Your task to perform on an android device: Turn on the flashlight Image 0: 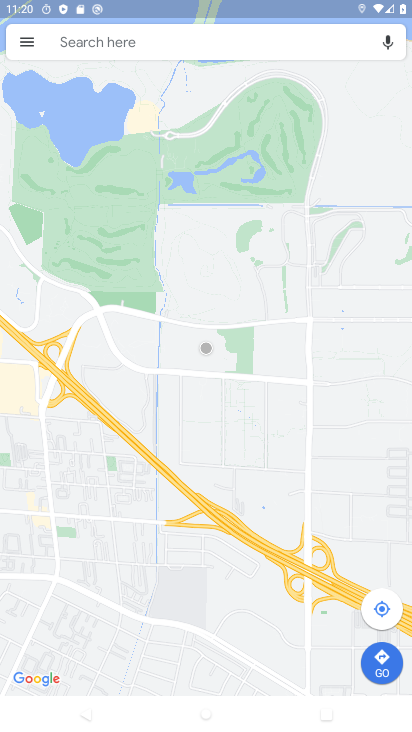
Step 0: drag from (182, 6) to (223, 475)
Your task to perform on an android device: Turn on the flashlight Image 1: 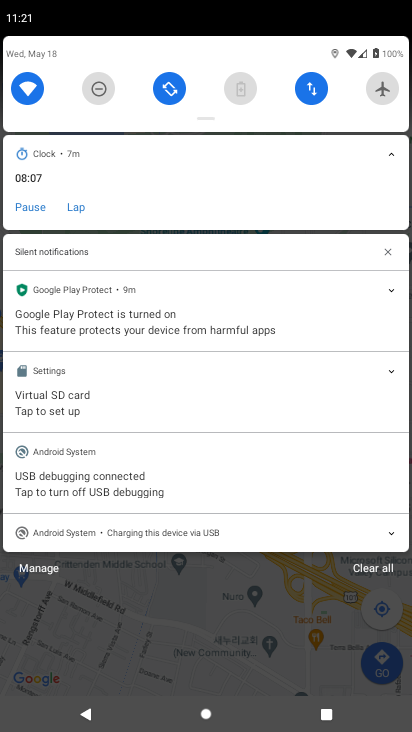
Step 1: drag from (212, 105) to (229, 601)
Your task to perform on an android device: Turn on the flashlight Image 2: 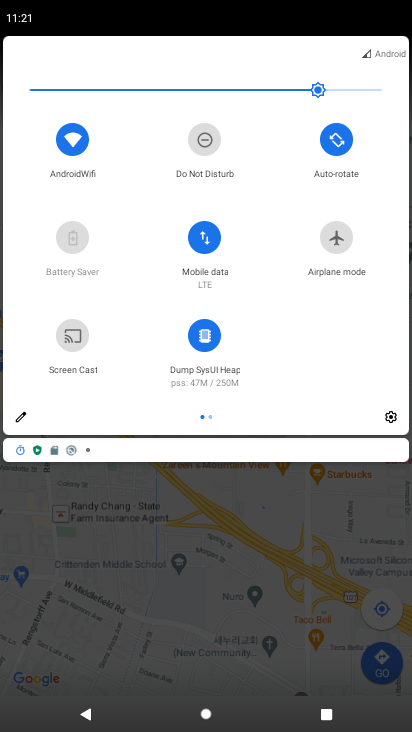
Step 2: click (17, 416)
Your task to perform on an android device: Turn on the flashlight Image 3: 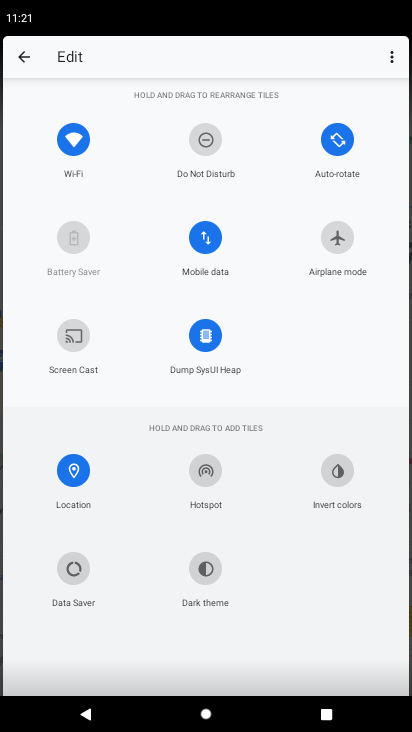
Step 3: task complete